Your task to perform on an android device: remove spam from my inbox in the gmail app Image 0: 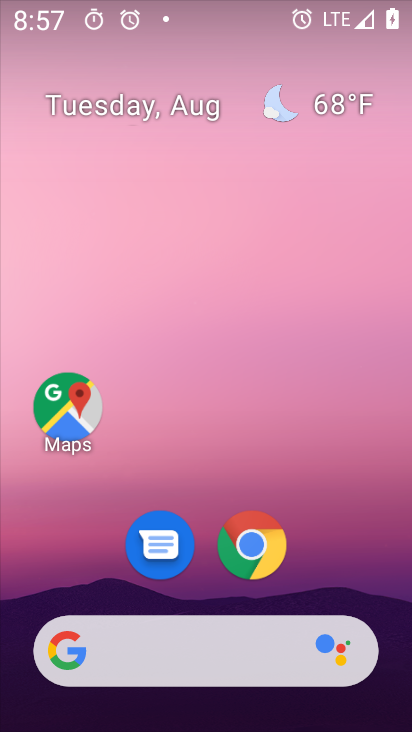
Step 0: drag from (209, 631) to (267, 116)
Your task to perform on an android device: remove spam from my inbox in the gmail app Image 1: 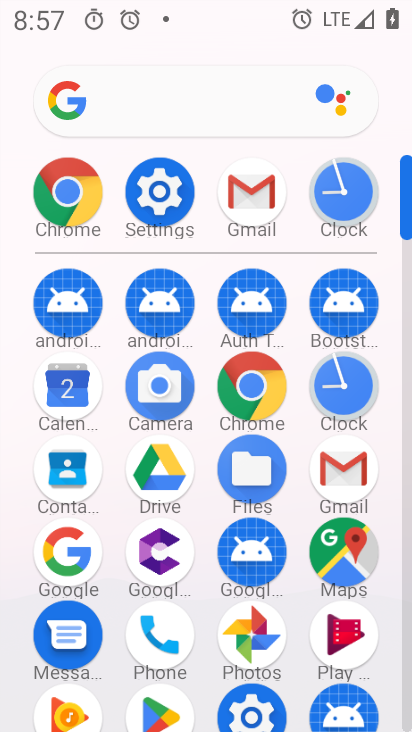
Step 1: click (254, 218)
Your task to perform on an android device: remove spam from my inbox in the gmail app Image 2: 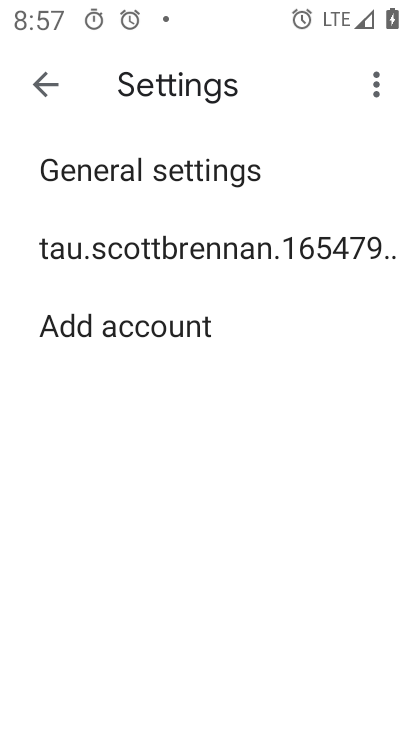
Step 2: click (37, 86)
Your task to perform on an android device: remove spam from my inbox in the gmail app Image 3: 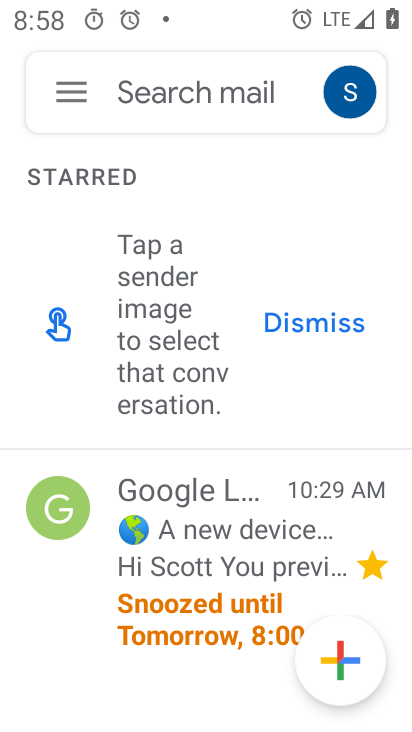
Step 3: click (52, 107)
Your task to perform on an android device: remove spam from my inbox in the gmail app Image 4: 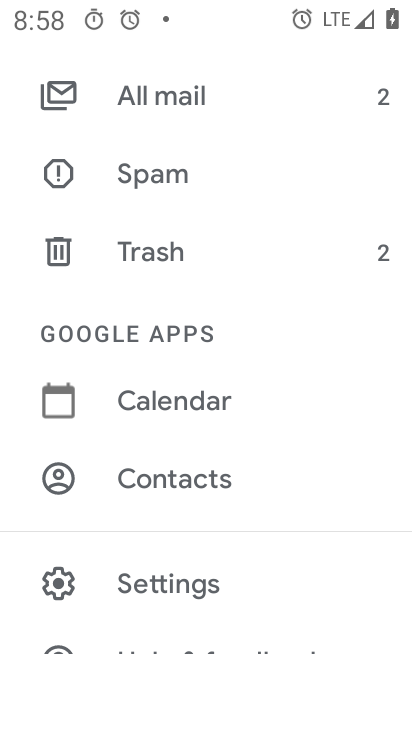
Step 4: click (191, 172)
Your task to perform on an android device: remove spam from my inbox in the gmail app Image 5: 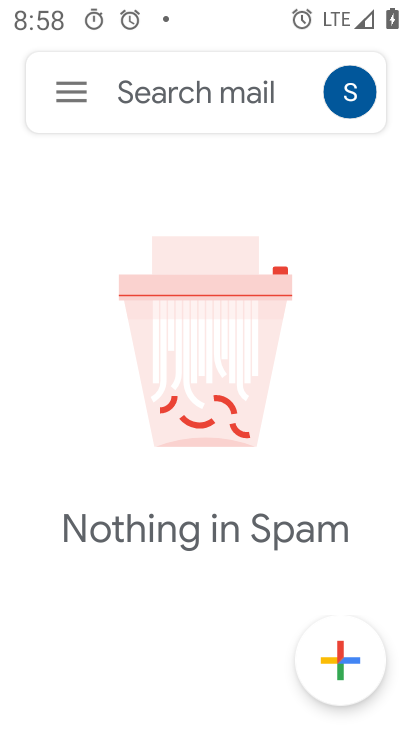
Step 5: task complete